Your task to perform on an android device: Open Google Maps and go to "Timeline" Image 0: 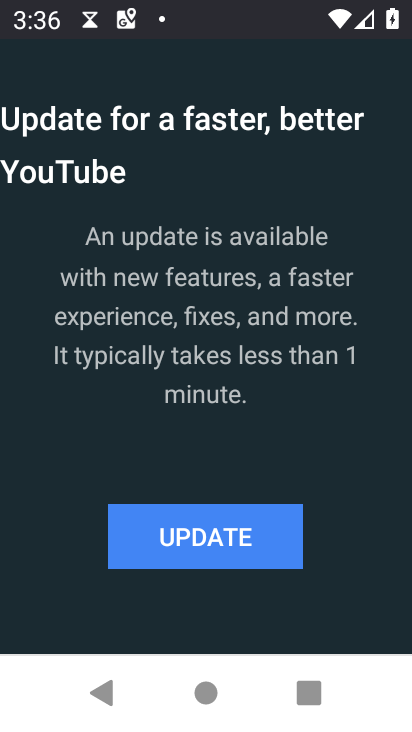
Step 0: press home button
Your task to perform on an android device: Open Google Maps and go to "Timeline" Image 1: 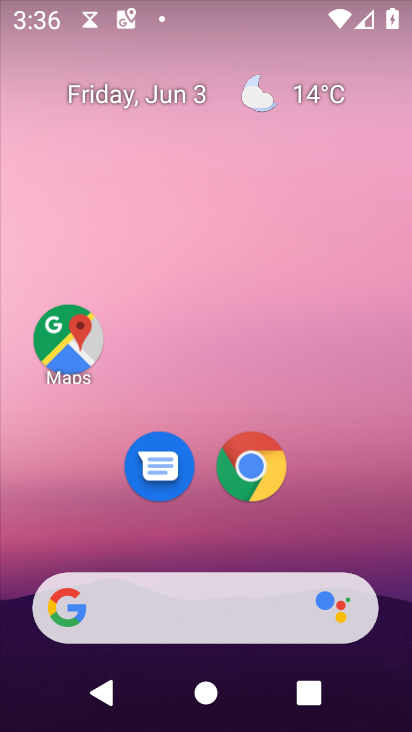
Step 1: click (86, 345)
Your task to perform on an android device: Open Google Maps and go to "Timeline" Image 2: 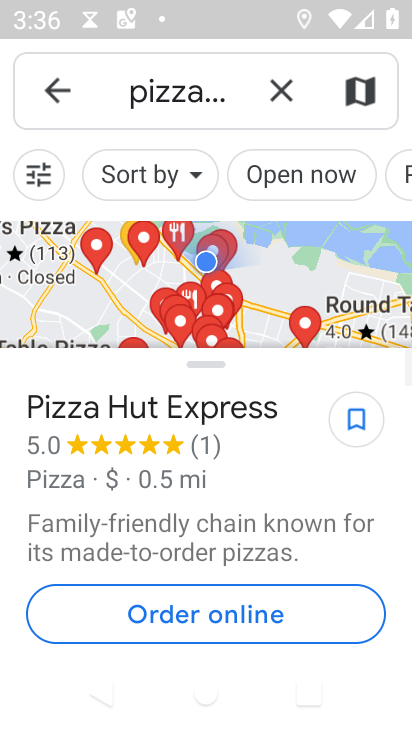
Step 2: click (273, 88)
Your task to perform on an android device: Open Google Maps and go to "Timeline" Image 3: 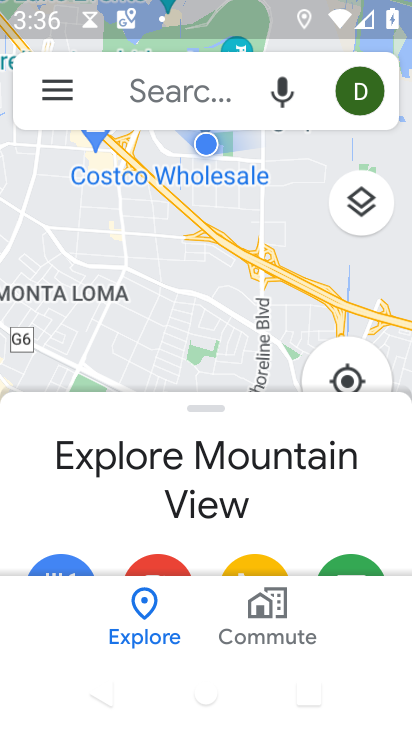
Step 3: click (166, 73)
Your task to perform on an android device: Open Google Maps and go to "Timeline" Image 4: 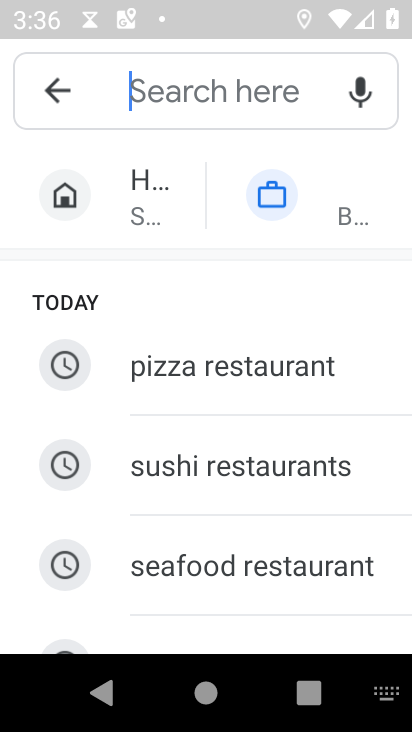
Step 4: type "TImeline"
Your task to perform on an android device: Open Google Maps and go to "Timeline" Image 5: 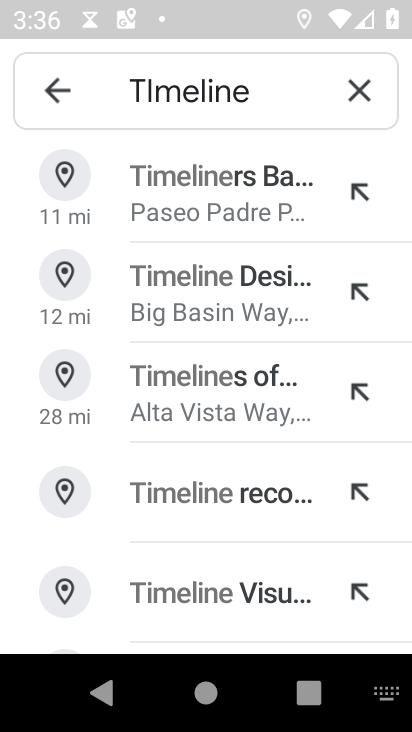
Step 5: click (188, 264)
Your task to perform on an android device: Open Google Maps and go to "Timeline" Image 6: 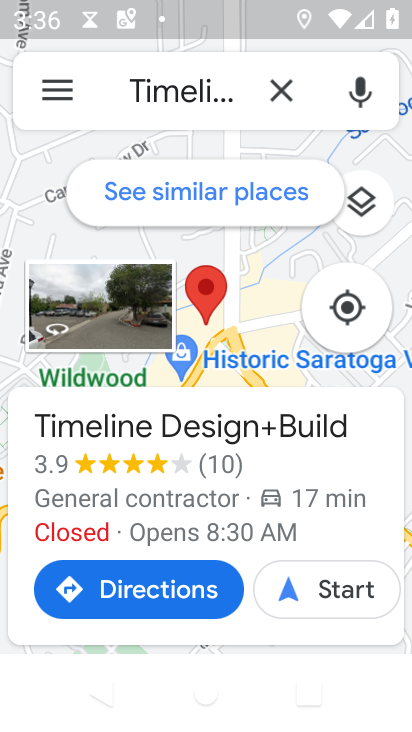
Step 6: task complete